Your task to perform on an android device: install app "Spotify: Music and Podcasts" Image 0: 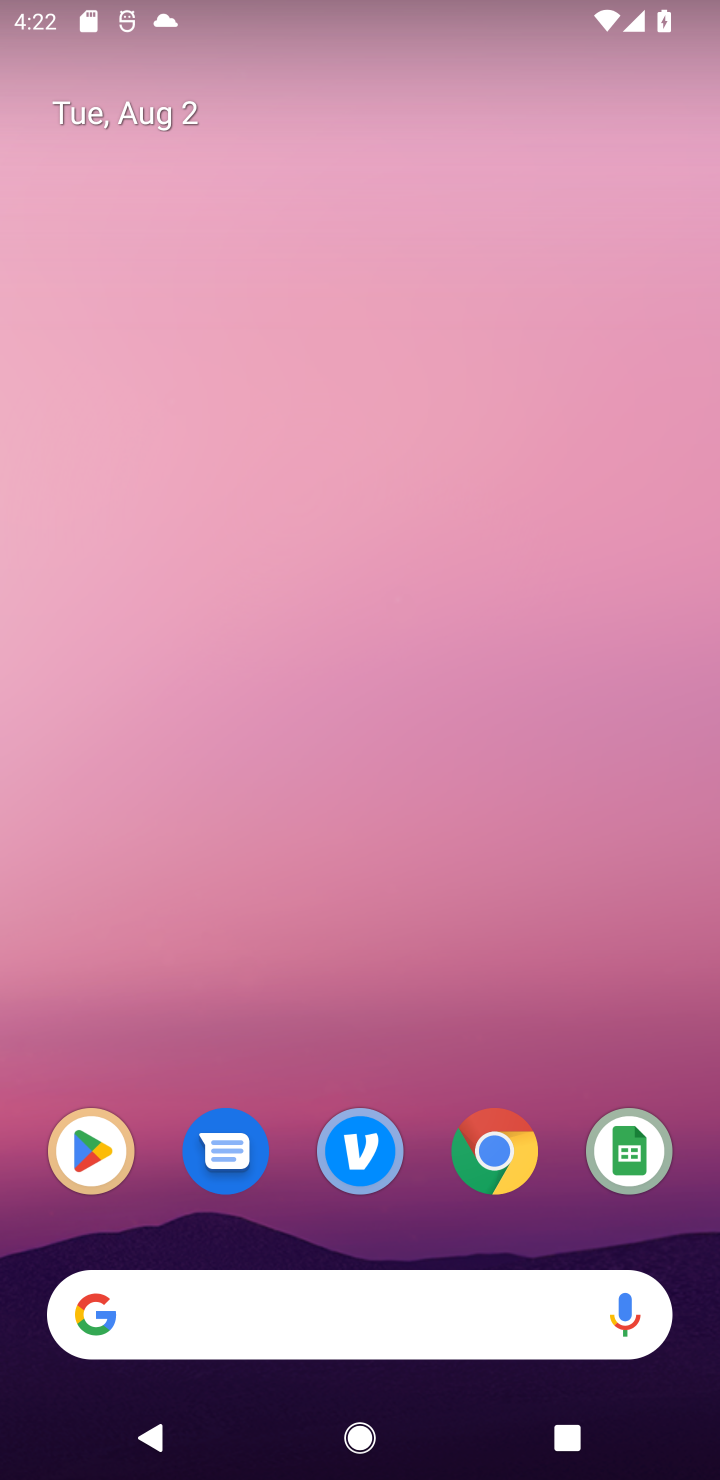
Step 0: drag from (319, 1316) to (444, 169)
Your task to perform on an android device: install app "Spotify: Music and Podcasts" Image 1: 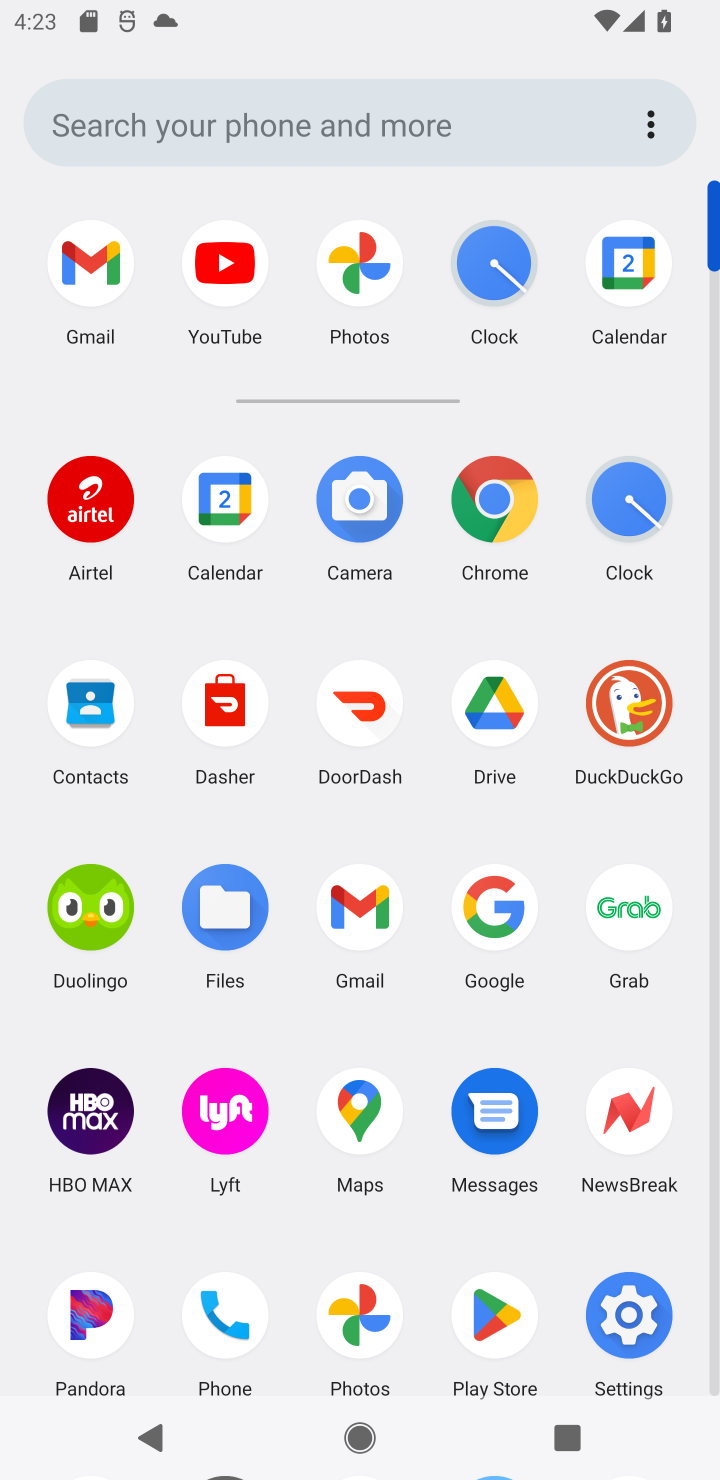
Step 1: click (503, 1318)
Your task to perform on an android device: install app "Spotify: Music and Podcasts" Image 2: 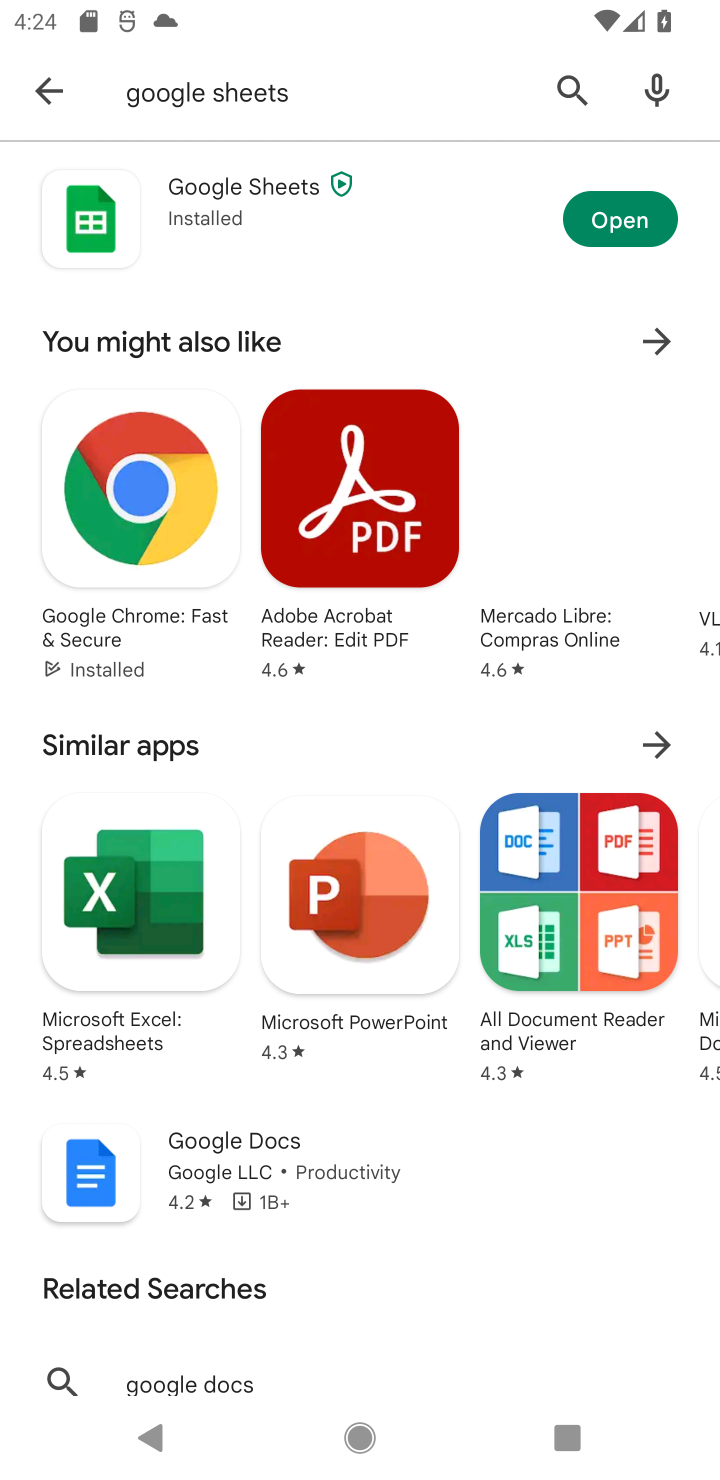
Step 2: click (33, 66)
Your task to perform on an android device: install app "Spotify: Music and Podcasts" Image 3: 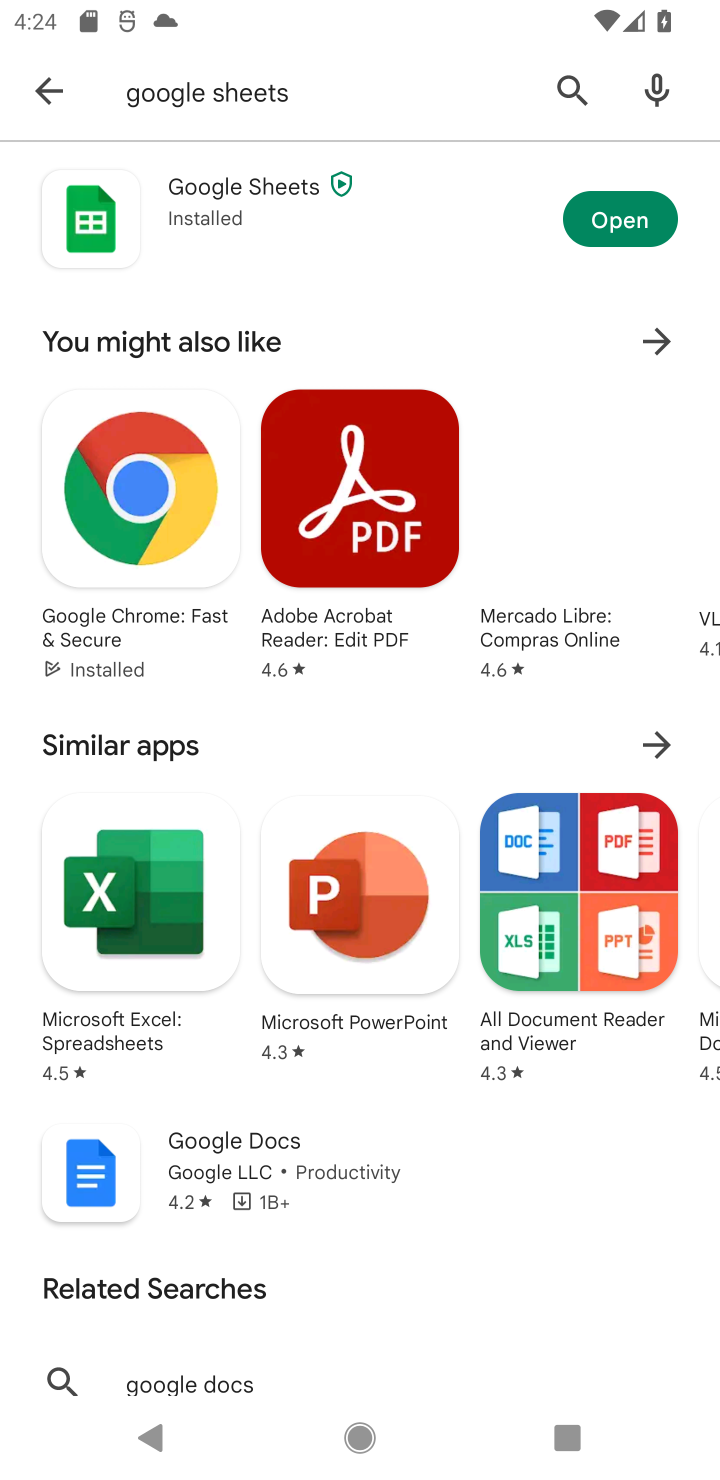
Step 3: click (39, 92)
Your task to perform on an android device: install app "Spotify: Music and Podcasts" Image 4: 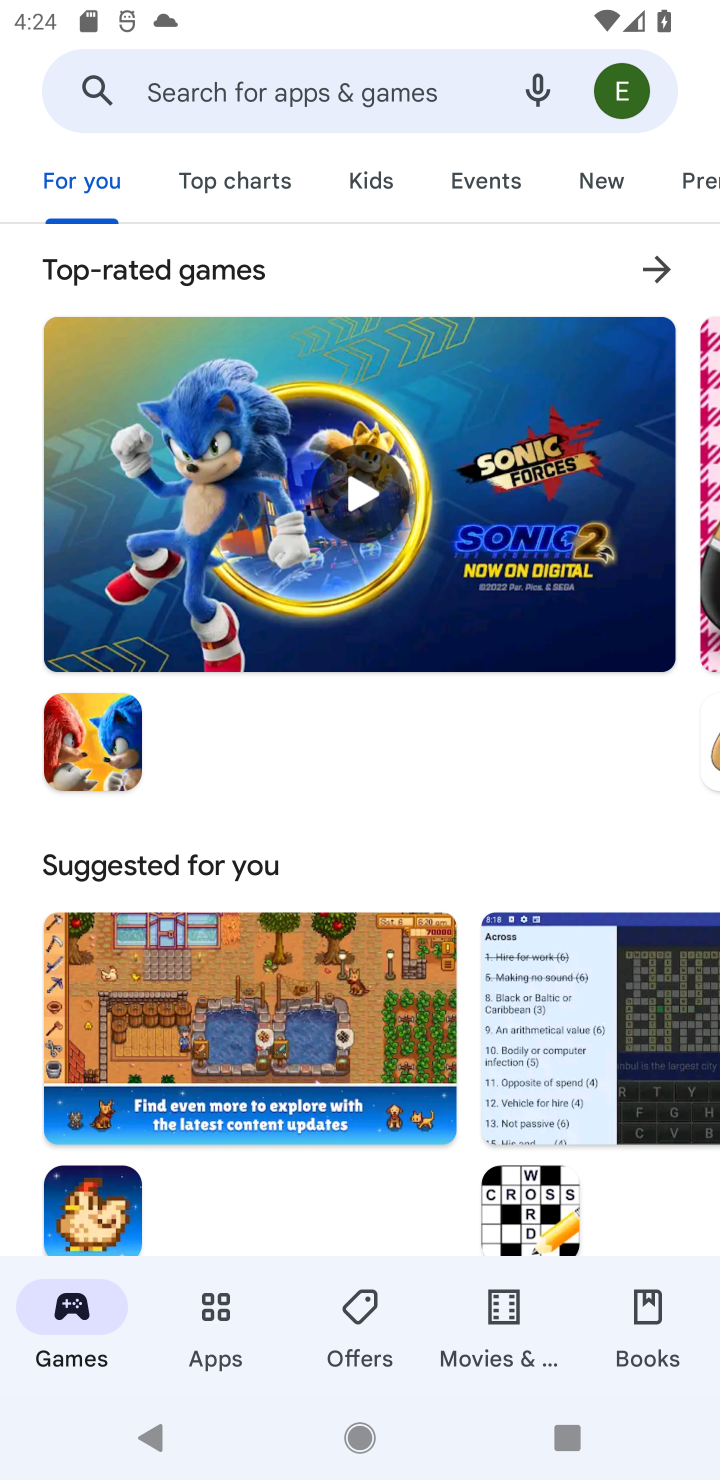
Step 4: click (225, 78)
Your task to perform on an android device: install app "Spotify: Music and Podcasts" Image 5: 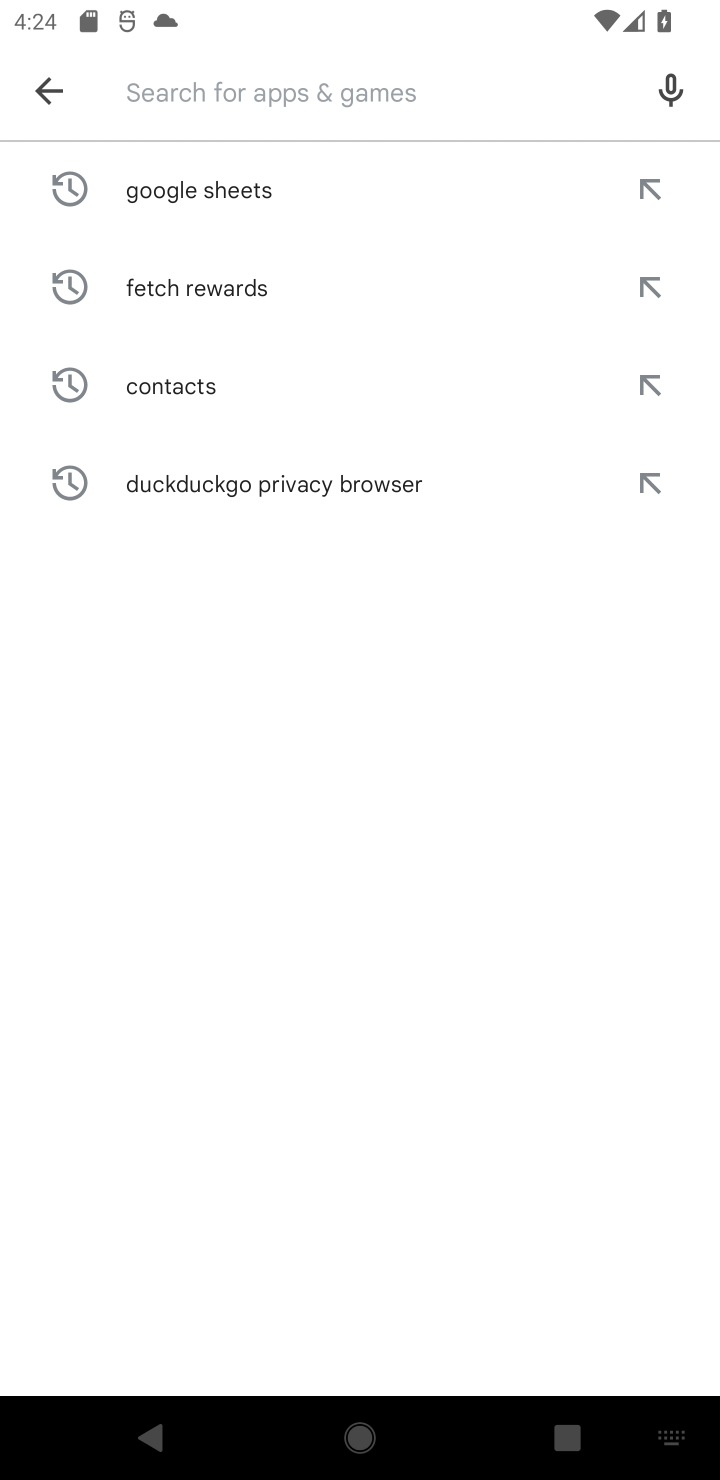
Step 5: type "Spotify: Music and Podcasts"
Your task to perform on an android device: install app "Spotify: Music and Podcasts" Image 6: 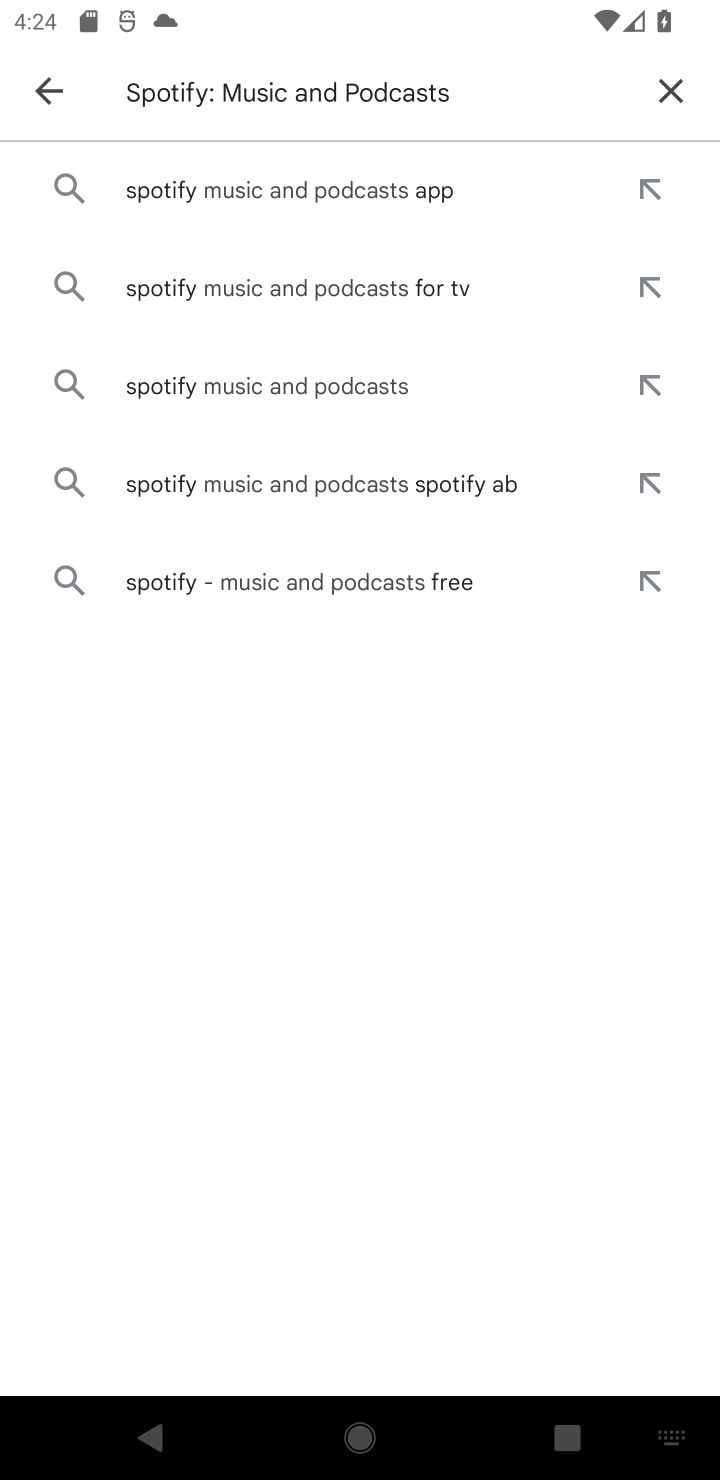
Step 6: click (313, 199)
Your task to perform on an android device: install app "Spotify: Music and Podcasts" Image 7: 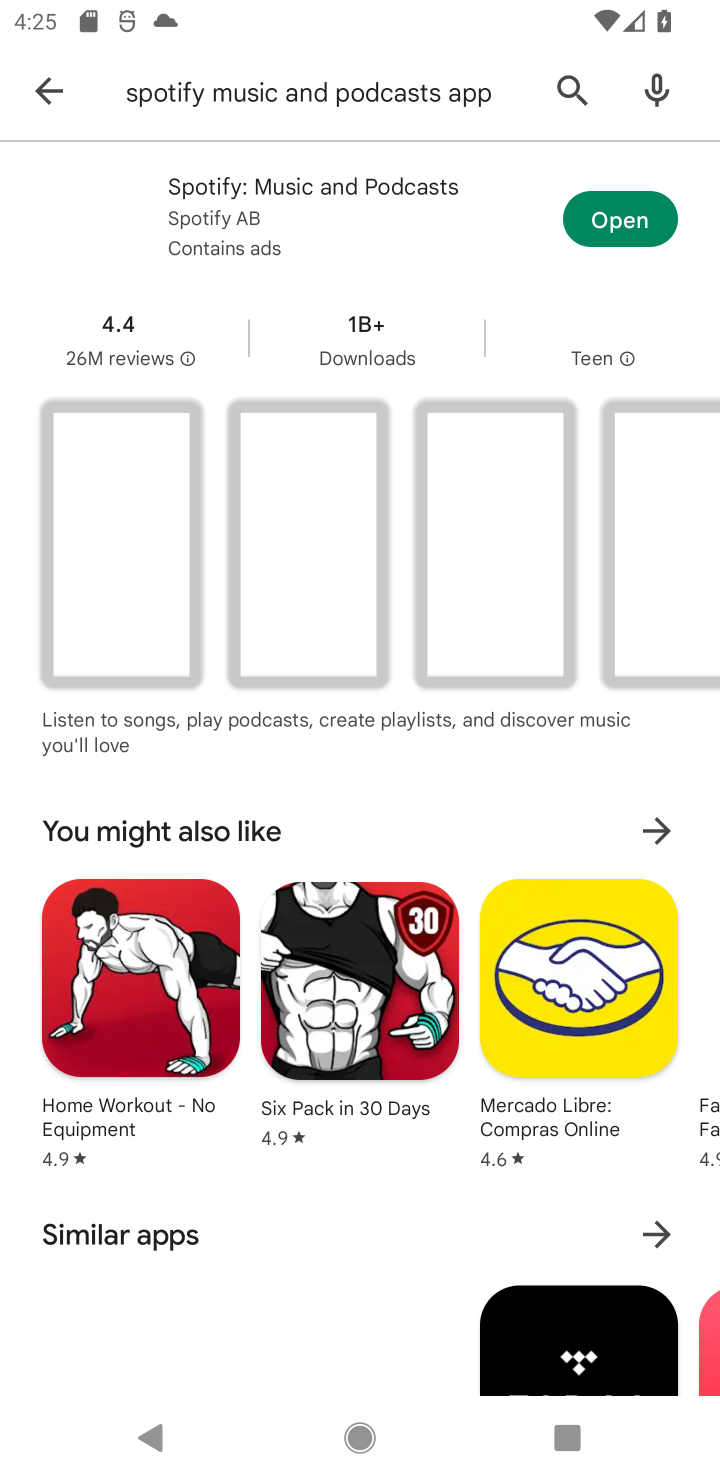
Step 7: task complete